Your task to perform on an android device: stop showing notifications on the lock screen Image 0: 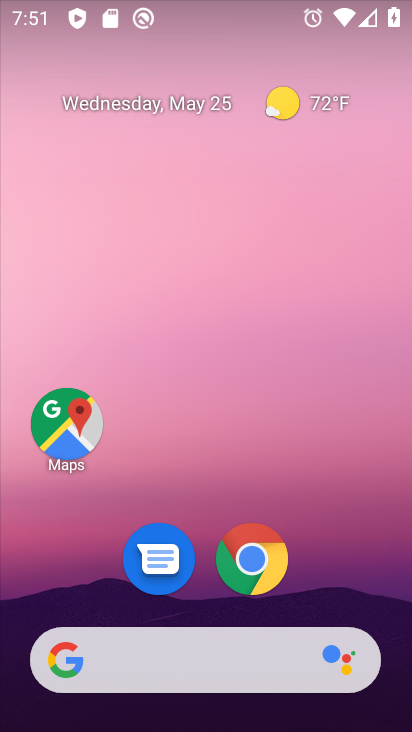
Step 0: drag from (220, 690) to (318, 74)
Your task to perform on an android device: stop showing notifications on the lock screen Image 1: 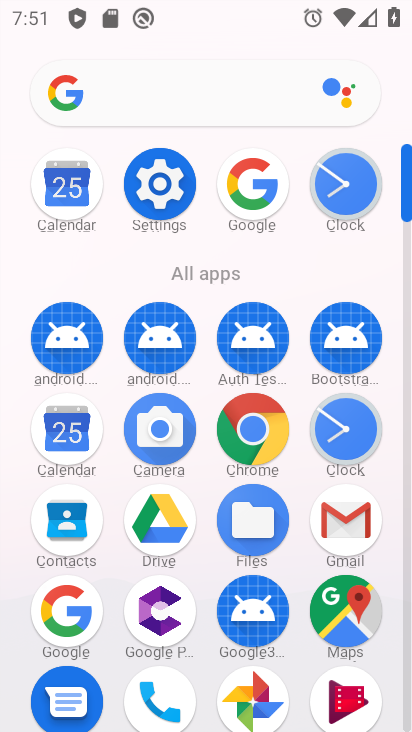
Step 1: click (153, 189)
Your task to perform on an android device: stop showing notifications on the lock screen Image 2: 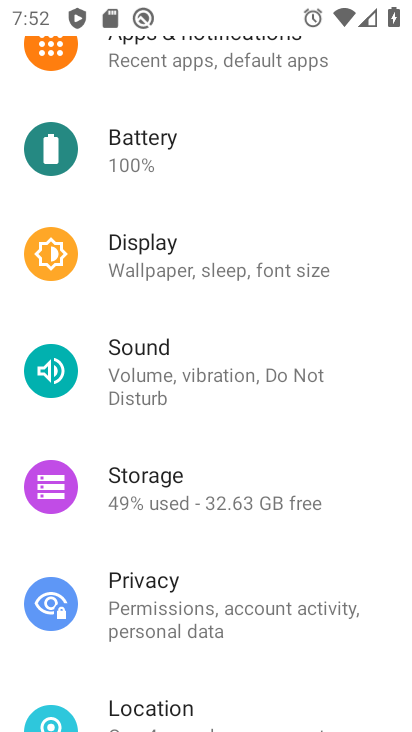
Step 2: click (241, 61)
Your task to perform on an android device: stop showing notifications on the lock screen Image 3: 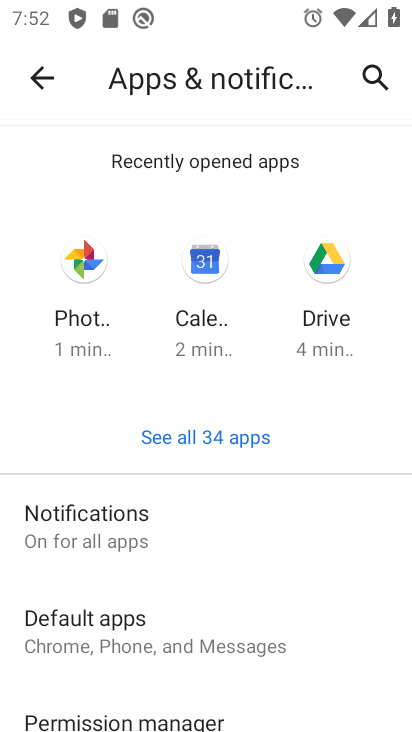
Step 3: click (122, 546)
Your task to perform on an android device: stop showing notifications on the lock screen Image 4: 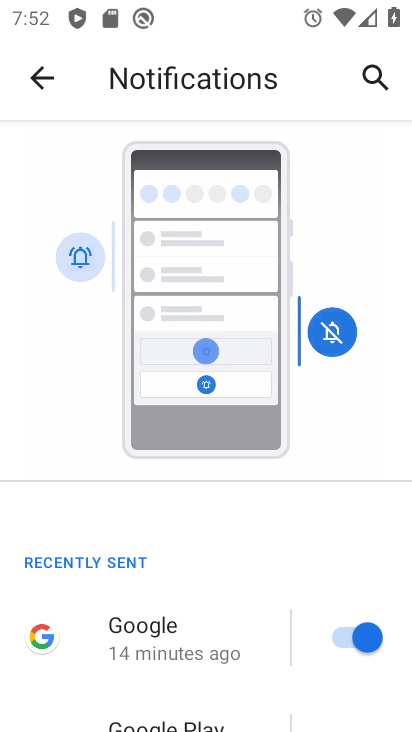
Step 4: drag from (165, 475) to (248, 228)
Your task to perform on an android device: stop showing notifications on the lock screen Image 5: 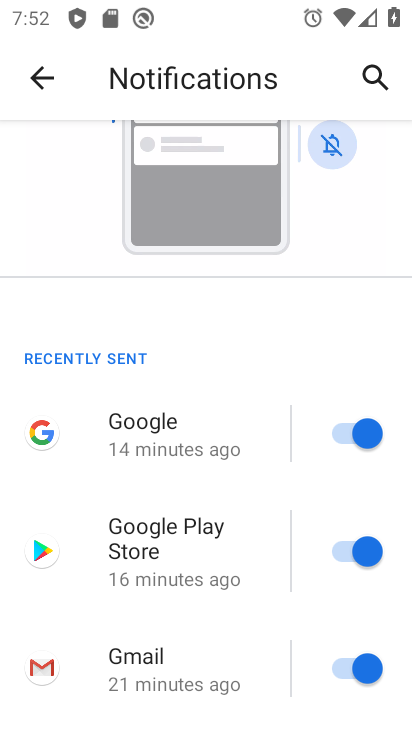
Step 5: drag from (205, 557) to (223, 196)
Your task to perform on an android device: stop showing notifications on the lock screen Image 6: 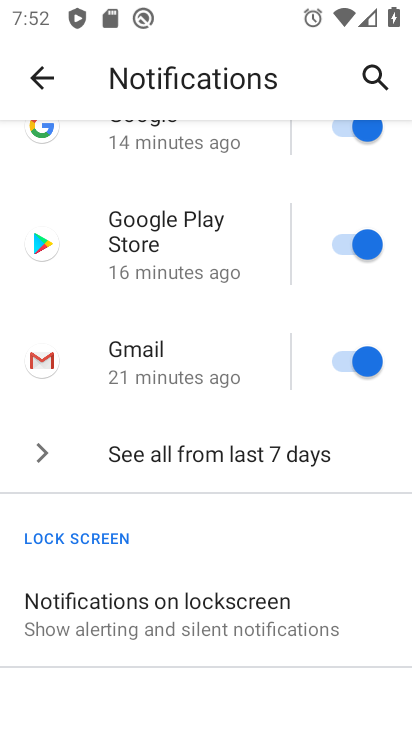
Step 6: click (218, 610)
Your task to perform on an android device: stop showing notifications on the lock screen Image 7: 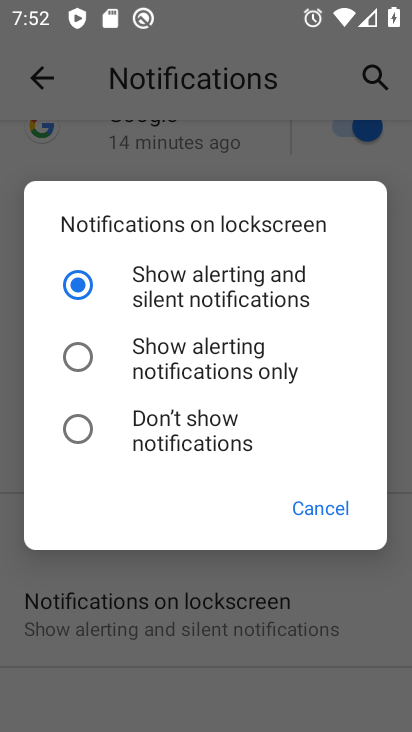
Step 7: click (168, 430)
Your task to perform on an android device: stop showing notifications on the lock screen Image 8: 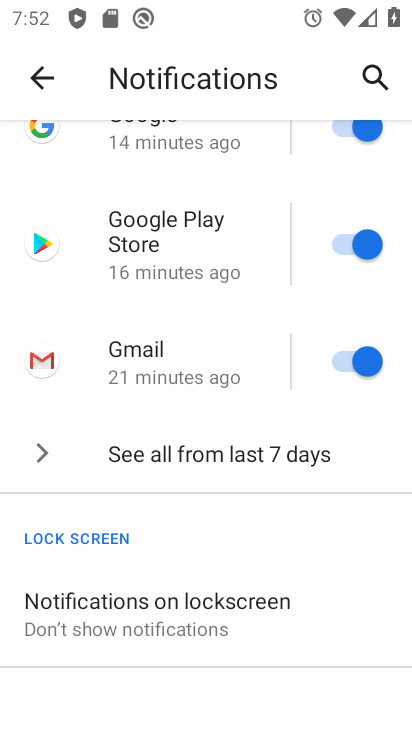
Step 8: task complete